Your task to perform on an android device: Show me popular games on the Play Store Image 0: 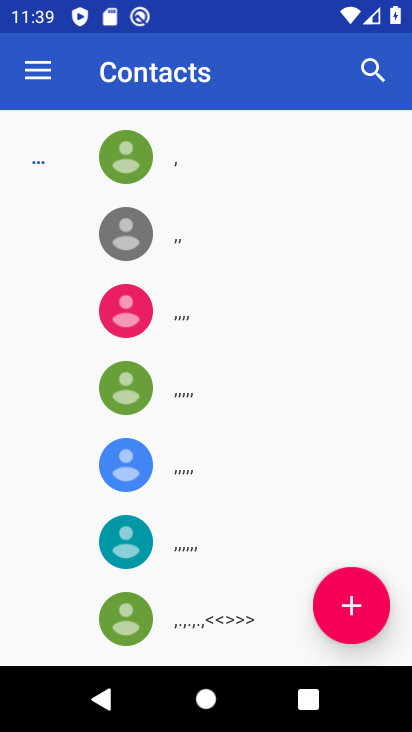
Step 0: press home button
Your task to perform on an android device: Show me popular games on the Play Store Image 1: 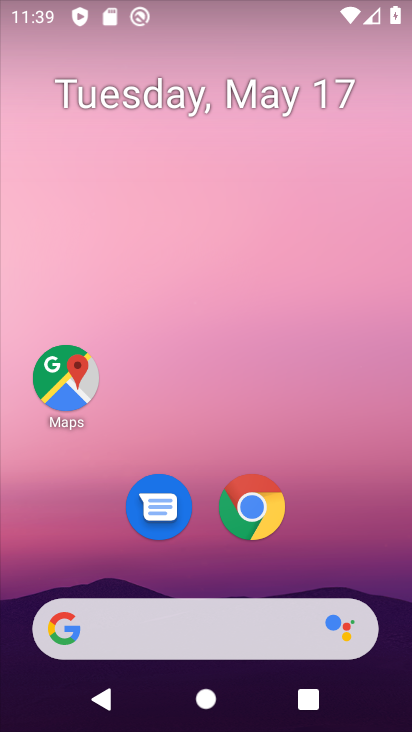
Step 1: drag from (327, 452) to (296, 114)
Your task to perform on an android device: Show me popular games on the Play Store Image 2: 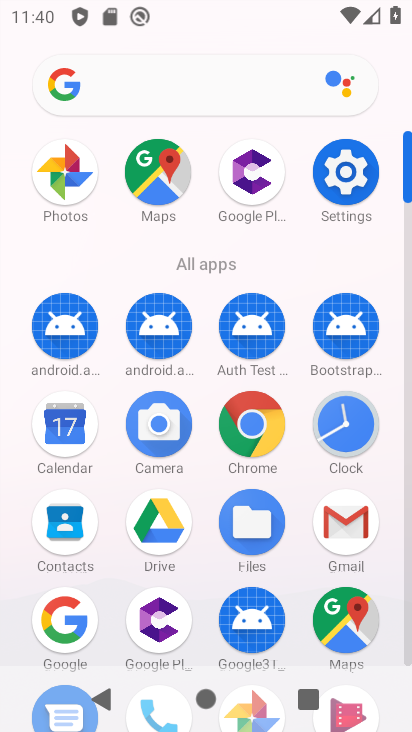
Step 2: drag from (187, 621) to (231, 183)
Your task to perform on an android device: Show me popular games on the Play Store Image 3: 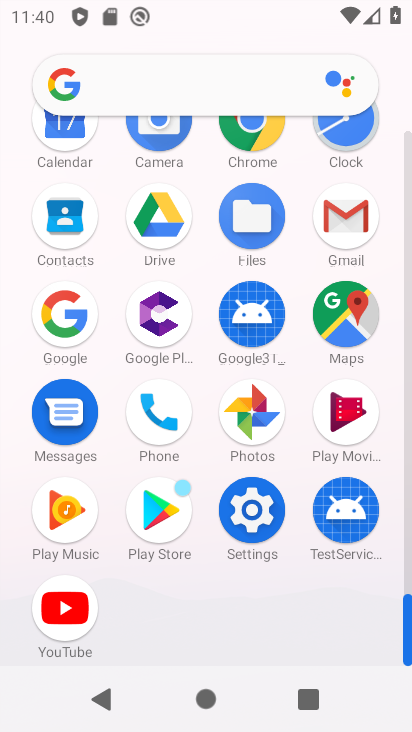
Step 3: click (155, 518)
Your task to perform on an android device: Show me popular games on the Play Store Image 4: 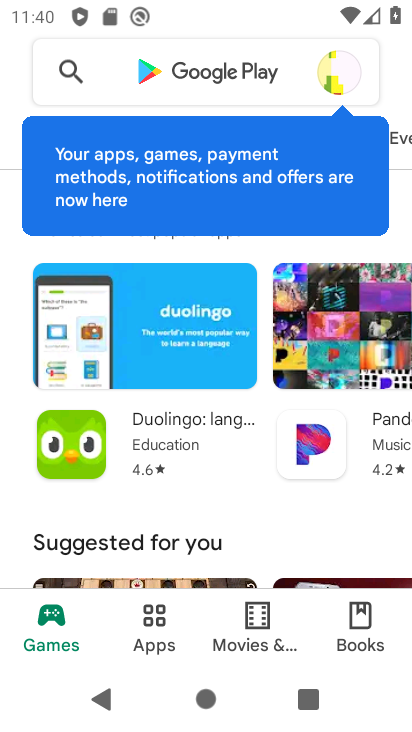
Step 4: click (158, 628)
Your task to perform on an android device: Show me popular games on the Play Store Image 5: 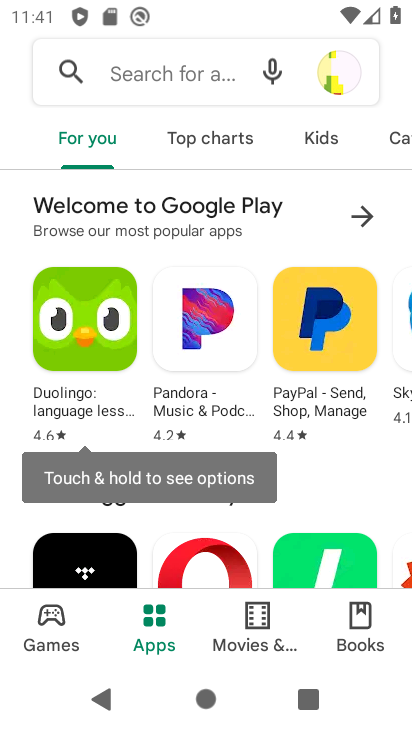
Step 5: task complete